Your task to perform on an android device: snooze an email in the gmail app Image 0: 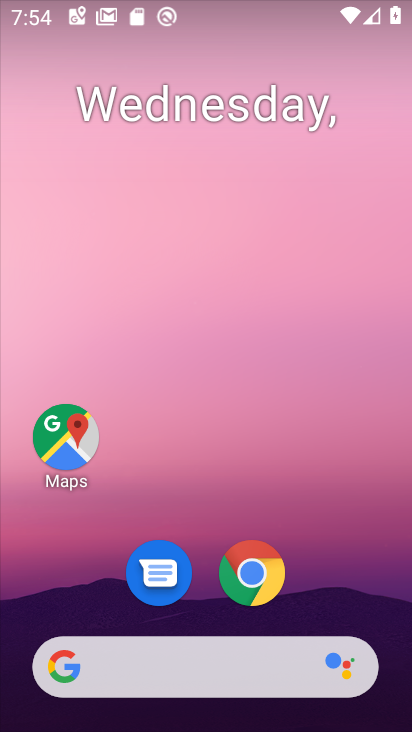
Step 0: drag from (327, 618) to (330, 24)
Your task to perform on an android device: snooze an email in the gmail app Image 1: 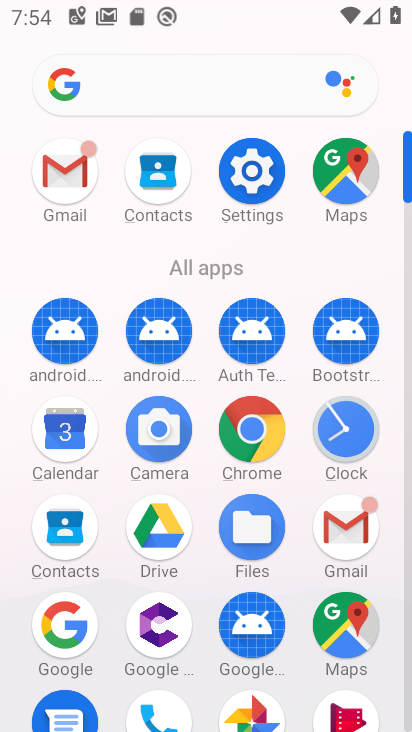
Step 1: click (55, 184)
Your task to perform on an android device: snooze an email in the gmail app Image 2: 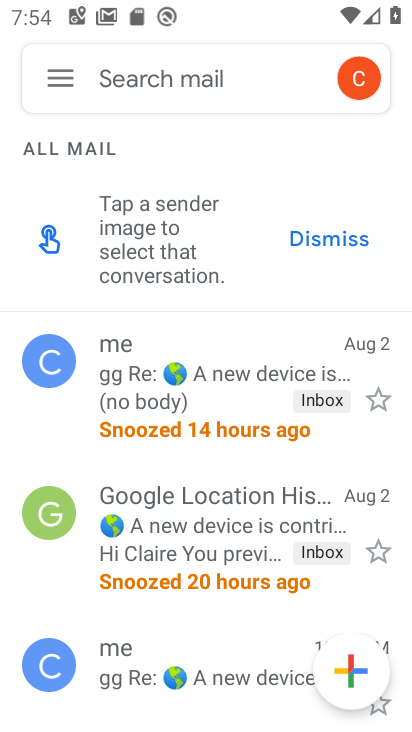
Step 2: drag from (165, 463) to (162, 167)
Your task to perform on an android device: snooze an email in the gmail app Image 3: 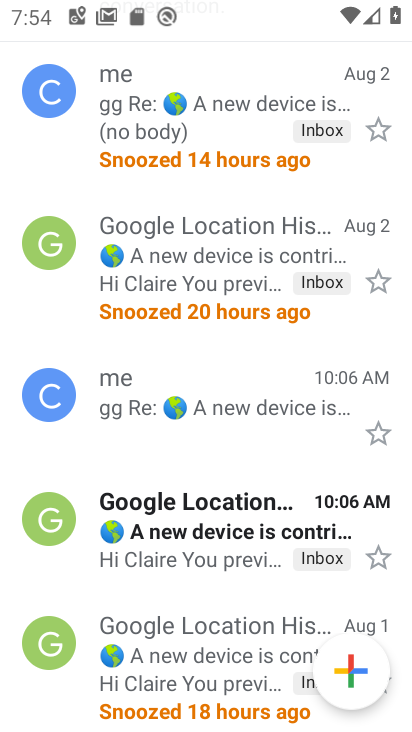
Step 3: click (166, 409)
Your task to perform on an android device: snooze an email in the gmail app Image 4: 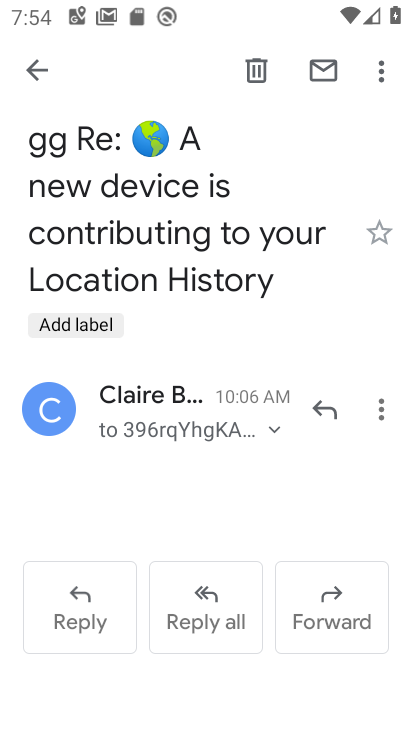
Step 4: click (380, 68)
Your task to perform on an android device: snooze an email in the gmail app Image 5: 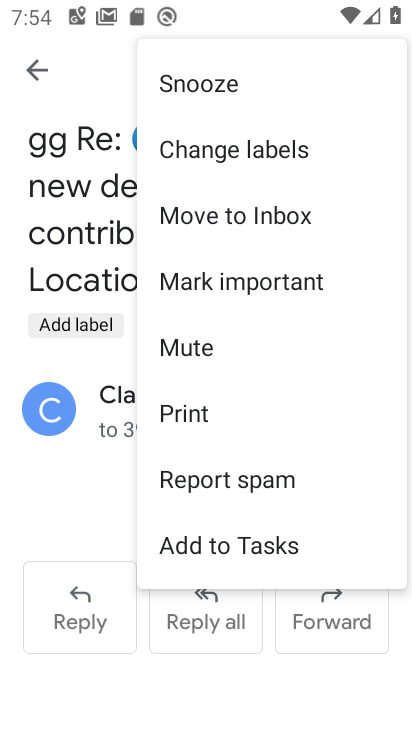
Step 5: click (206, 89)
Your task to perform on an android device: snooze an email in the gmail app Image 6: 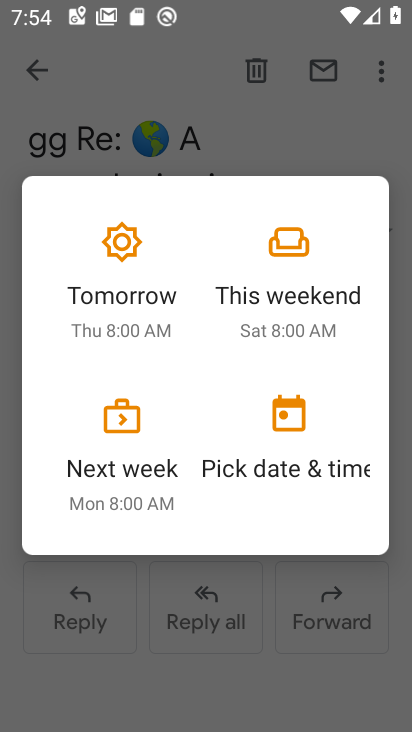
Step 6: click (118, 289)
Your task to perform on an android device: snooze an email in the gmail app Image 7: 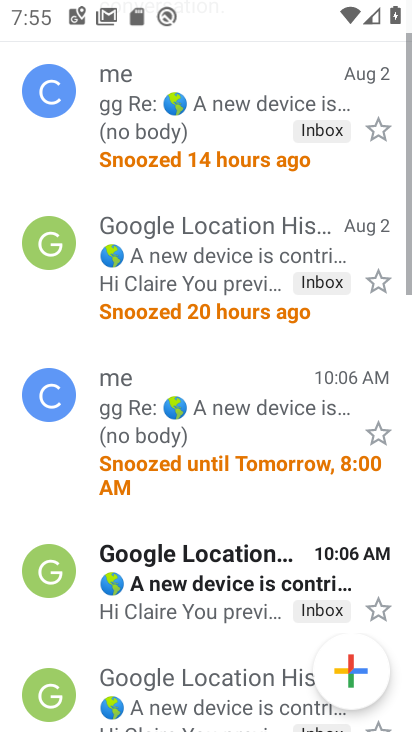
Step 7: task complete